Your task to perform on an android device: turn off notifications settings in the gmail app Image 0: 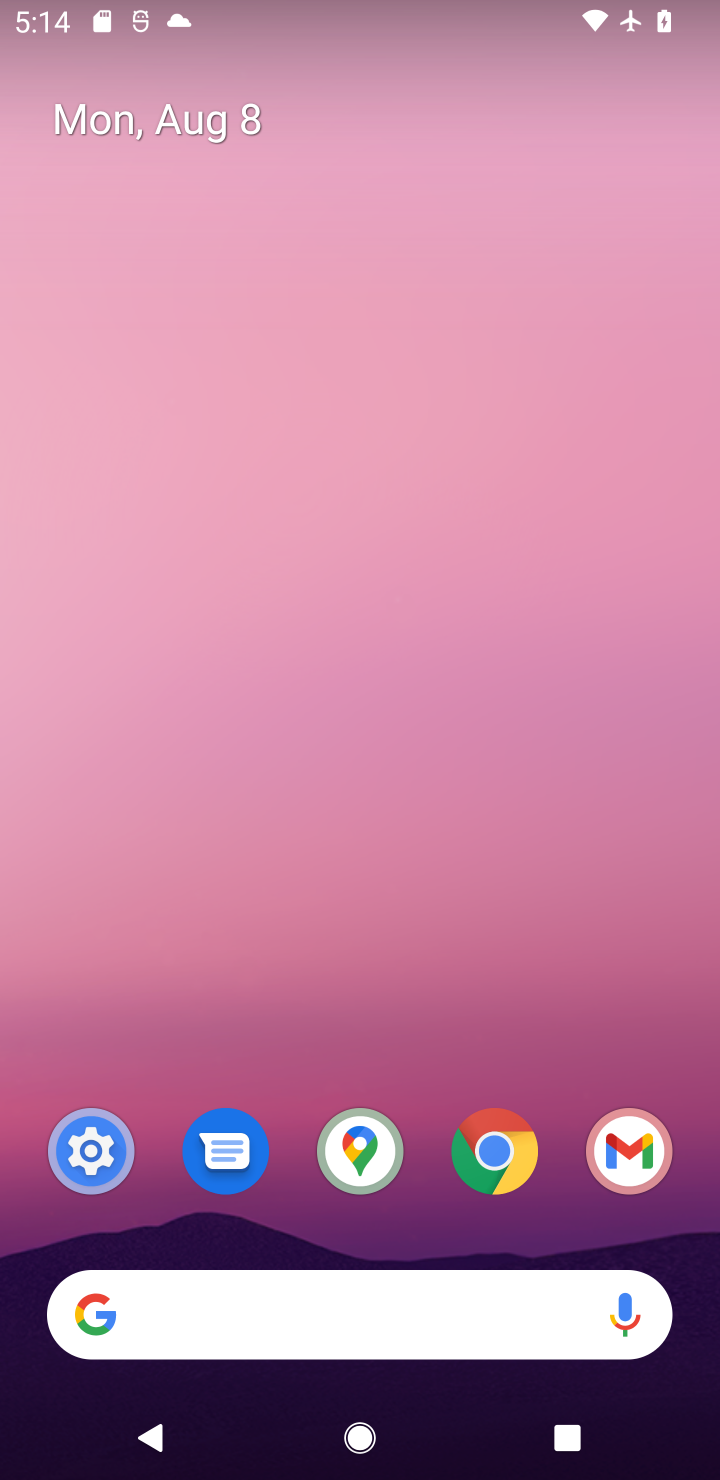
Step 0: click (637, 1177)
Your task to perform on an android device: turn off notifications settings in the gmail app Image 1: 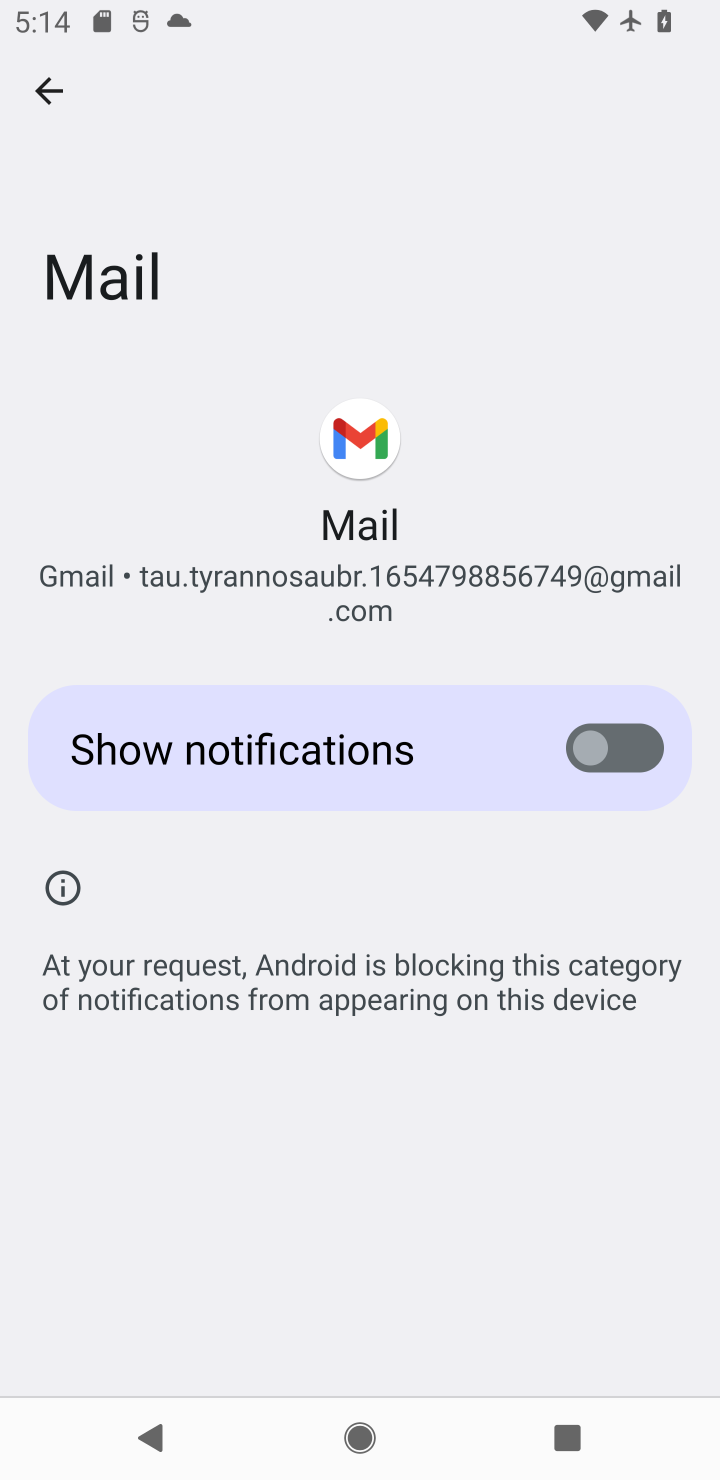
Step 1: click (33, 71)
Your task to perform on an android device: turn off notifications settings in the gmail app Image 2: 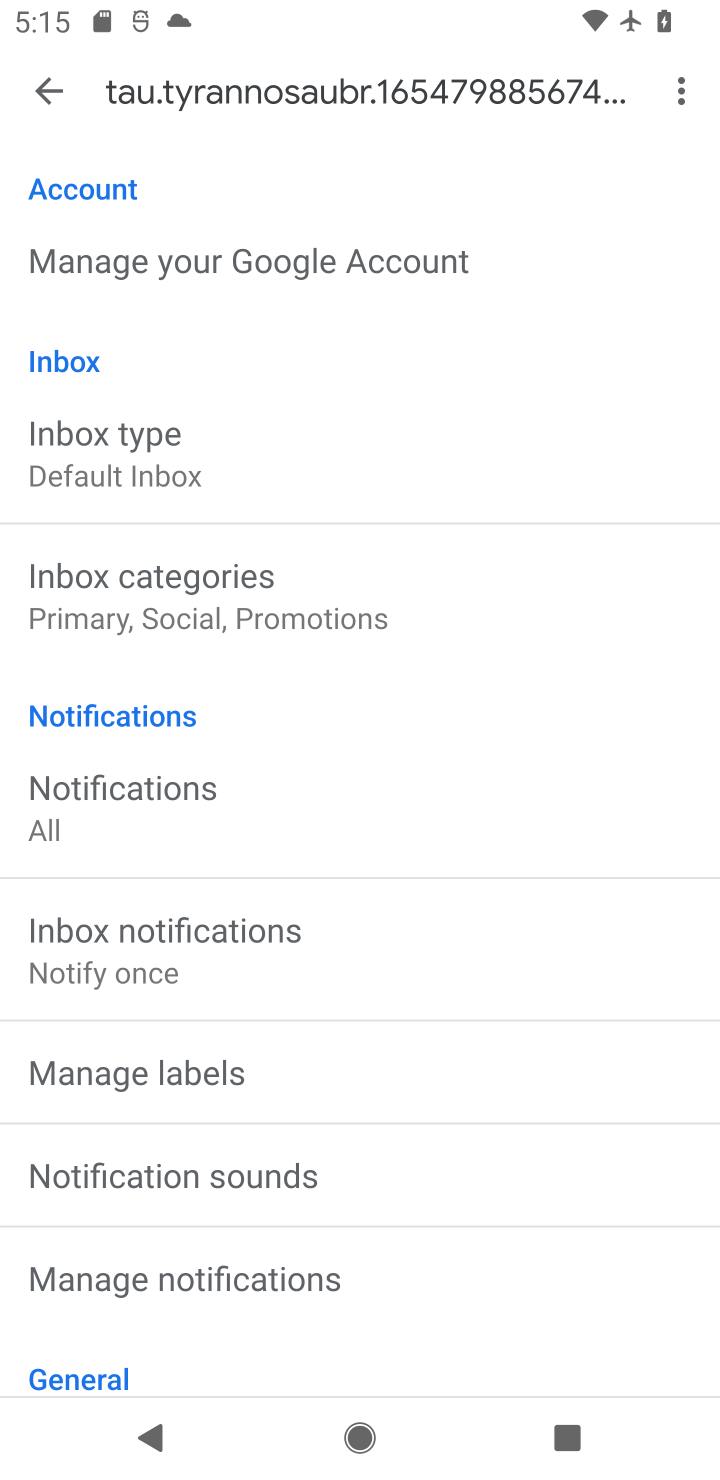
Step 2: click (262, 1278)
Your task to perform on an android device: turn off notifications settings in the gmail app Image 3: 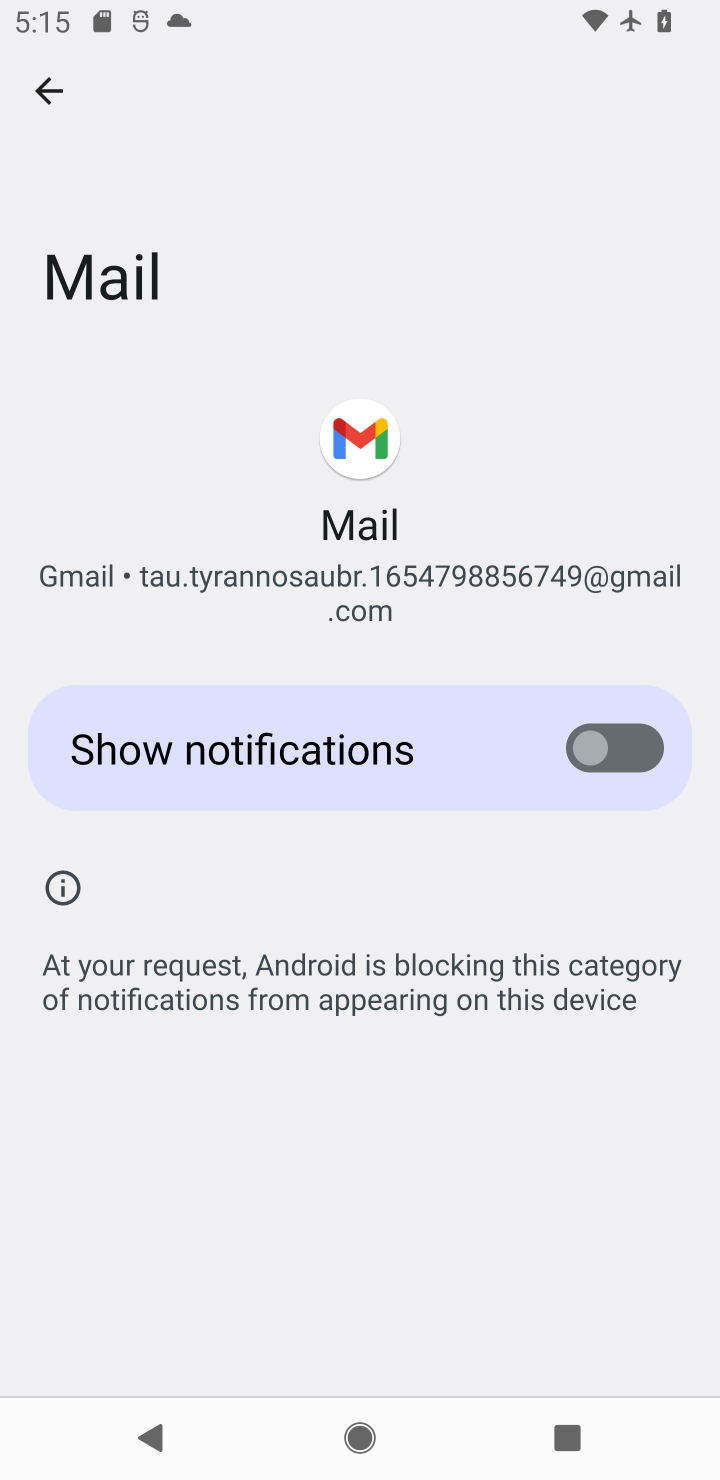
Step 3: task complete